Your task to perform on an android device: remove spam from my inbox in the gmail app Image 0: 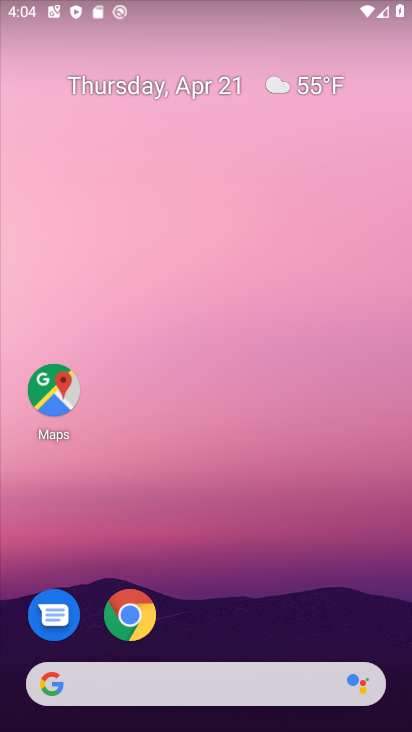
Step 0: drag from (278, 500) to (178, 19)
Your task to perform on an android device: remove spam from my inbox in the gmail app Image 1: 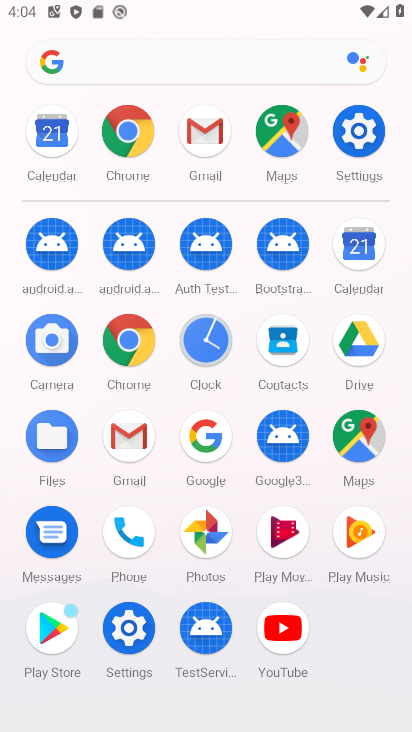
Step 1: drag from (8, 470) to (8, 266)
Your task to perform on an android device: remove spam from my inbox in the gmail app Image 2: 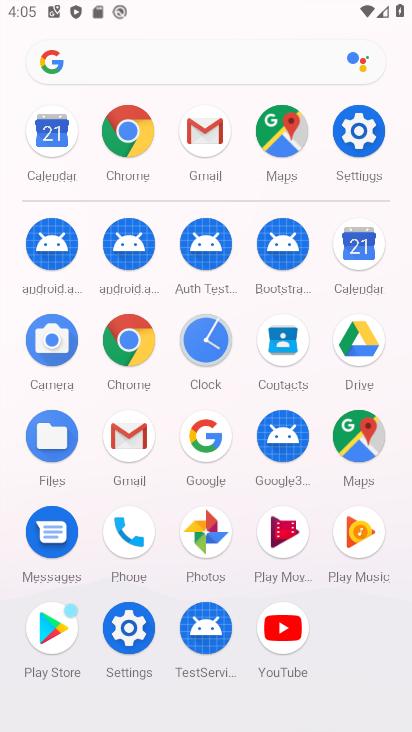
Step 2: drag from (5, 541) to (7, 273)
Your task to perform on an android device: remove spam from my inbox in the gmail app Image 3: 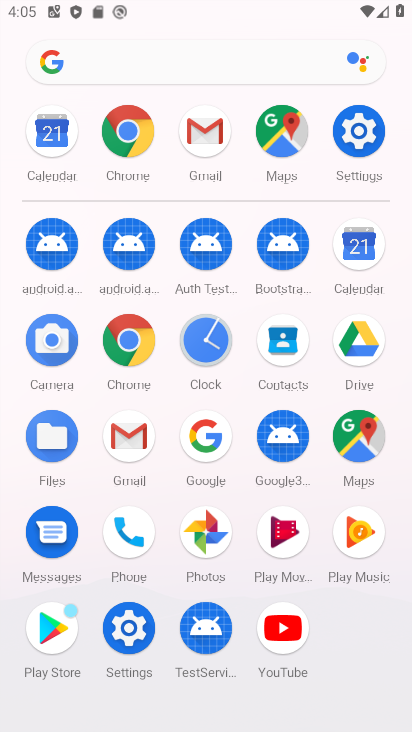
Step 3: click (126, 427)
Your task to perform on an android device: remove spam from my inbox in the gmail app Image 4: 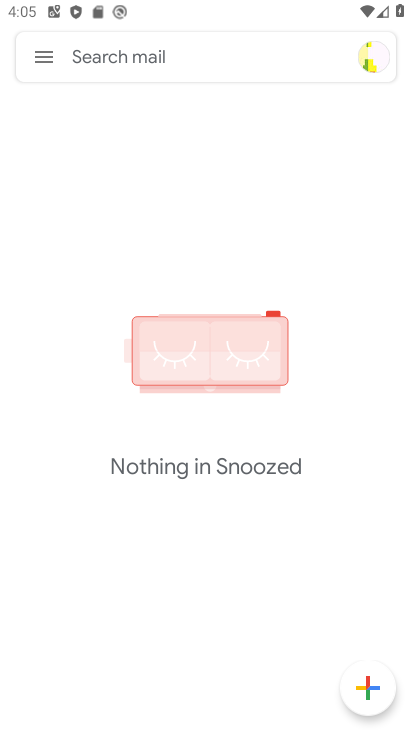
Step 4: click (28, 62)
Your task to perform on an android device: remove spam from my inbox in the gmail app Image 5: 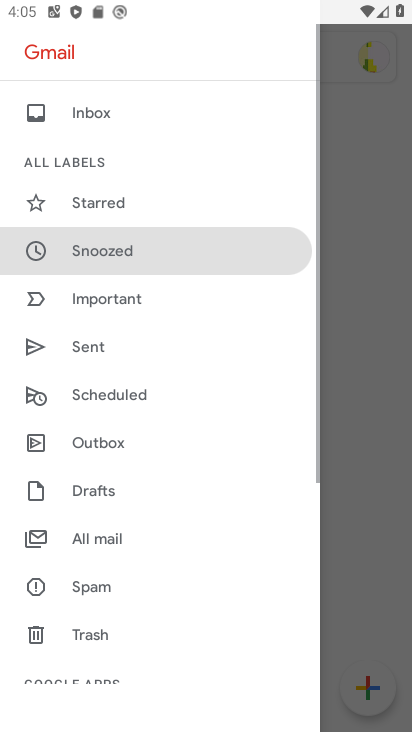
Step 5: drag from (187, 556) to (214, 128)
Your task to perform on an android device: remove spam from my inbox in the gmail app Image 6: 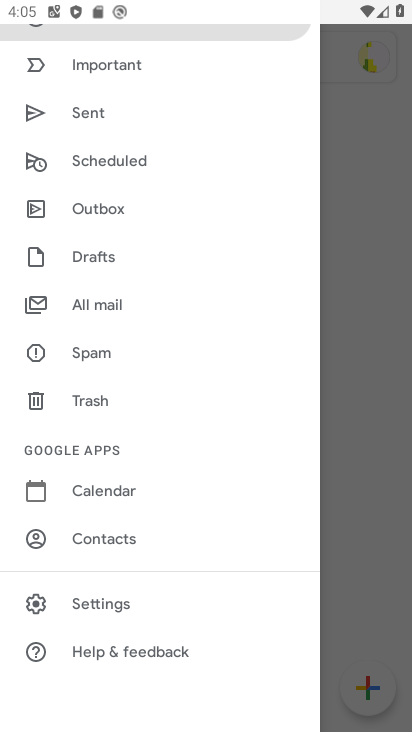
Step 6: click (122, 348)
Your task to perform on an android device: remove spam from my inbox in the gmail app Image 7: 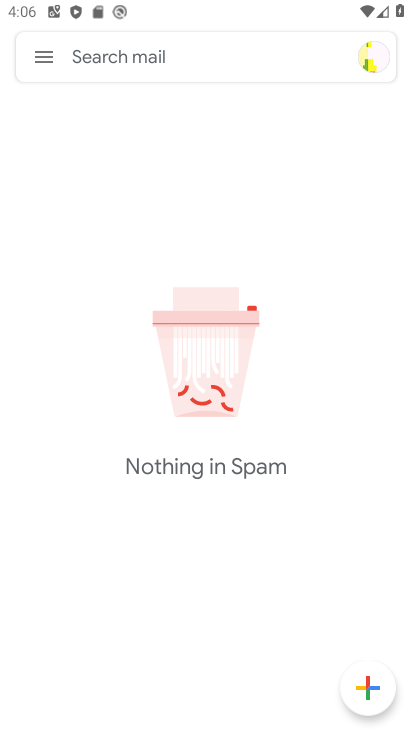
Step 7: task complete